Your task to perform on an android device: Toggle the flashlight Image 0: 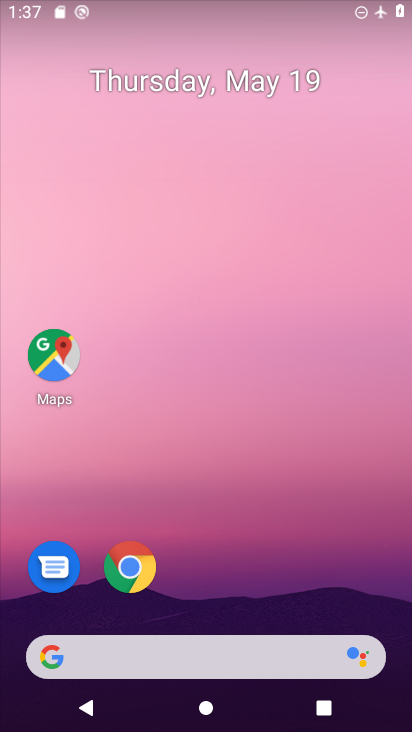
Step 0: drag from (291, 530) to (297, 44)
Your task to perform on an android device: Toggle the flashlight Image 1: 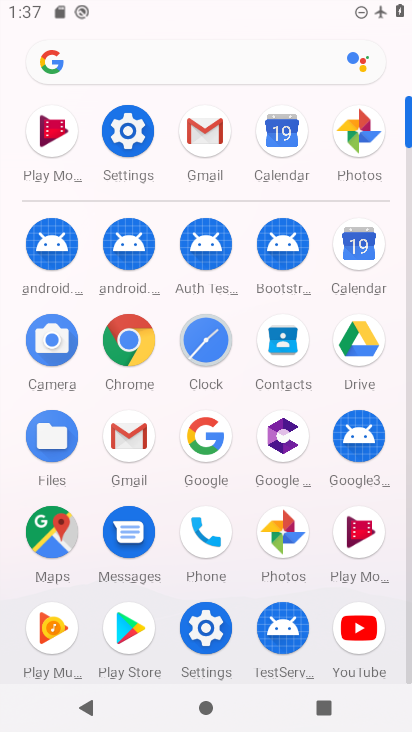
Step 1: click (132, 124)
Your task to perform on an android device: Toggle the flashlight Image 2: 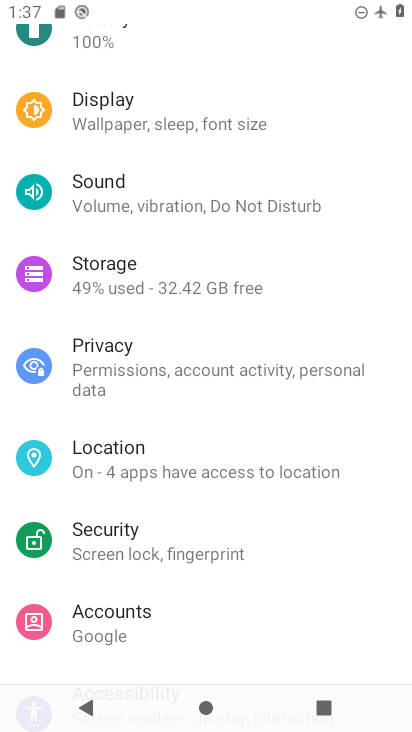
Step 2: drag from (281, 335) to (308, 595)
Your task to perform on an android device: Toggle the flashlight Image 3: 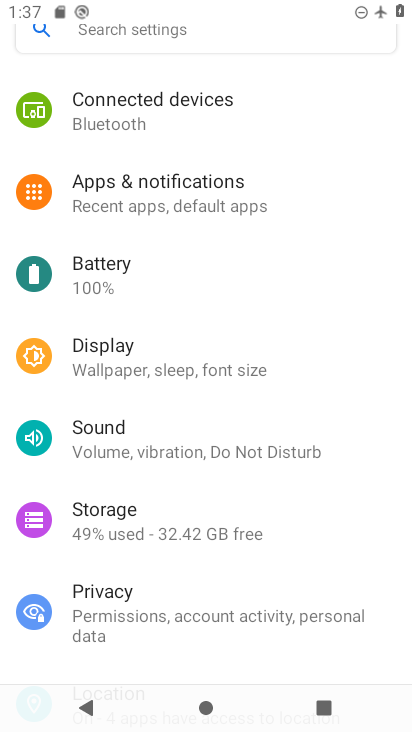
Step 3: drag from (228, 265) to (261, 544)
Your task to perform on an android device: Toggle the flashlight Image 4: 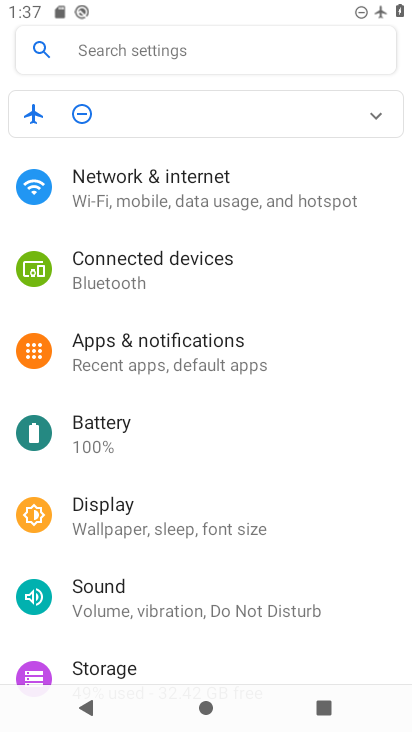
Step 4: click (232, 45)
Your task to perform on an android device: Toggle the flashlight Image 5: 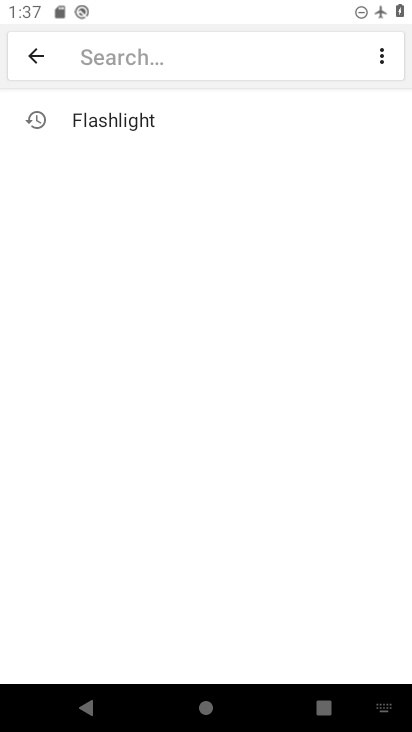
Step 5: click (135, 116)
Your task to perform on an android device: Toggle the flashlight Image 6: 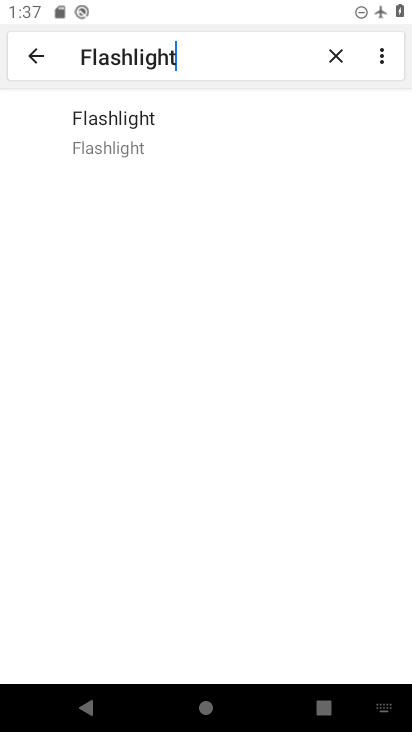
Step 6: click (130, 128)
Your task to perform on an android device: Toggle the flashlight Image 7: 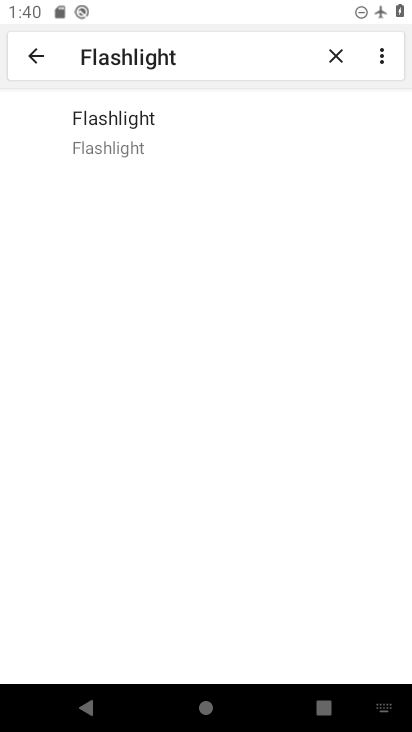
Step 7: task complete